Your task to perform on an android device: What's the weather today? Image 0: 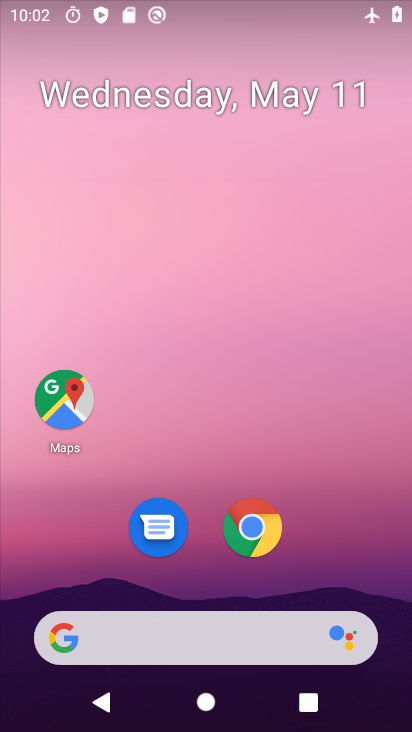
Step 0: drag from (317, 549) to (321, 210)
Your task to perform on an android device: What's the weather today? Image 1: 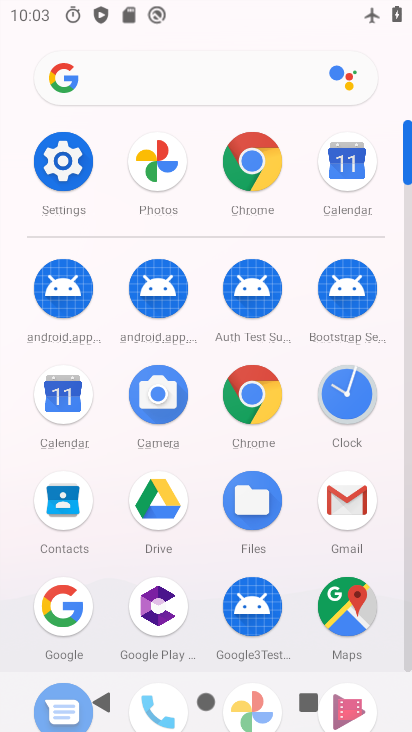
Step 1: click (71, 622)
Your task to perform on an android device: What's the weather today? Image 2: 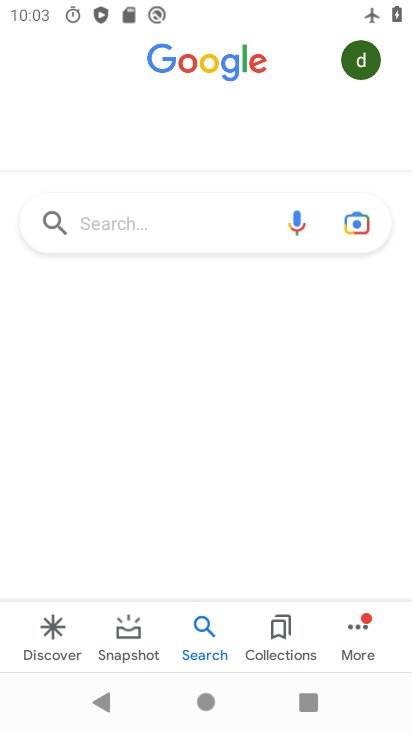
Step 2: click (171, 243)
Your task to perform on an android device: What's the weather today? Image 3: 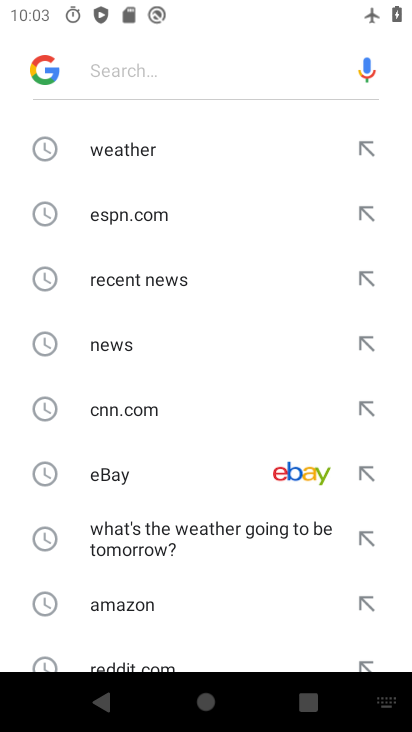
Step 3: click (200, 161)
Your task to perform on an android device: What's the weather today? Image 4: 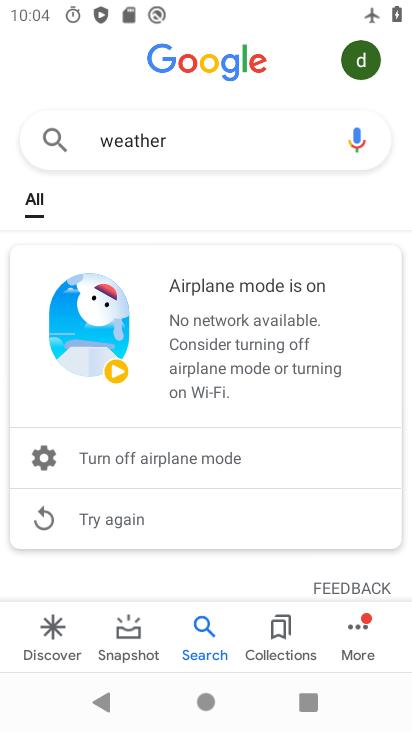
Step 4: task complete